Your task to perform on an android device: Open Google Maps Image 0: 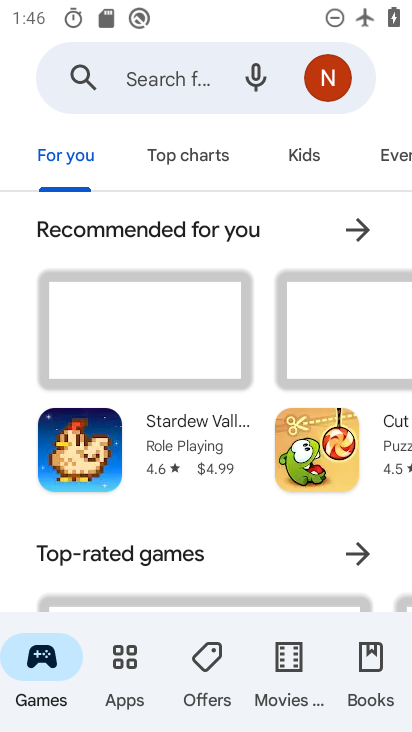
Step 0: press home button
Your task to perform on an android device: Open Google Maps Image 1: 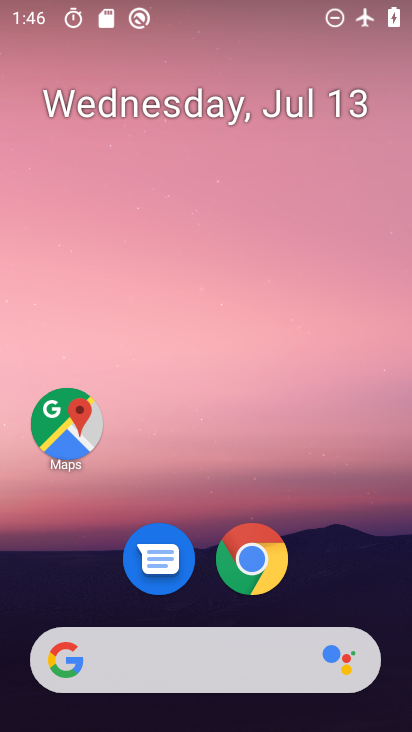
Step 1: drag from (257, 605) to (367, 124)
Your task to perform on an android device: Open Google Maps Image 2: 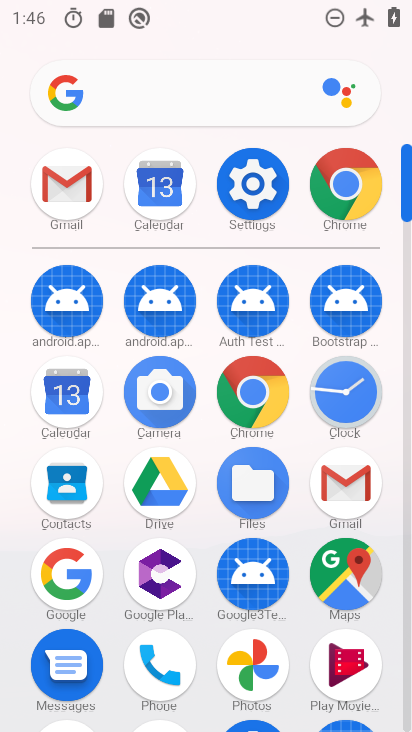
Step 2: drag from (239, 569) to (278, 409)
Your task to perform on an android device: Open Google Maps Image 3: 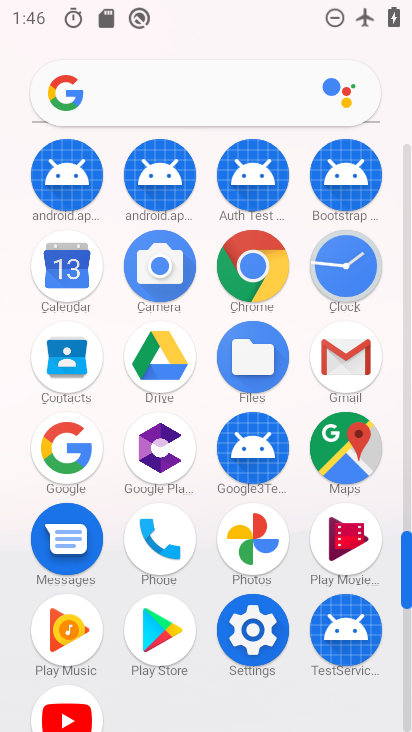
Step 3: click (337, 465)
Your task to perform on an android device: Open Google Maps Image 4: 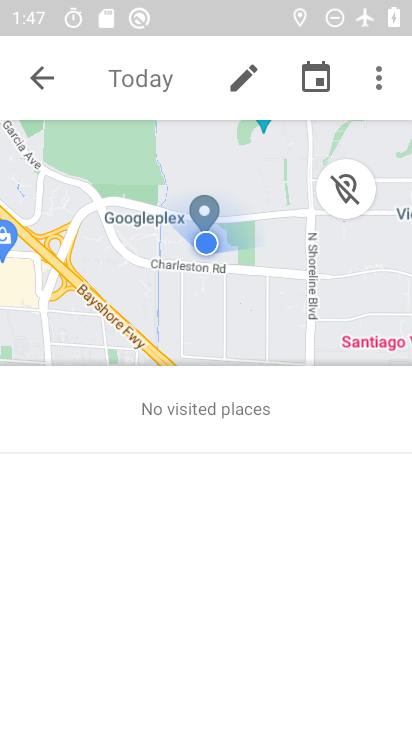
Step 4: task complete